Your task to perform on an android device: Go to internet settings Image 0: 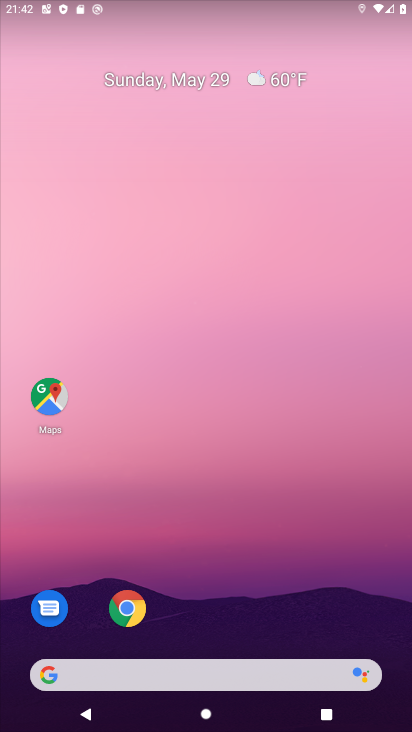
Step 0: drag from (371, 632) to (353, 243)
Your task to perform on an android device: Go to internet settings Image 1: 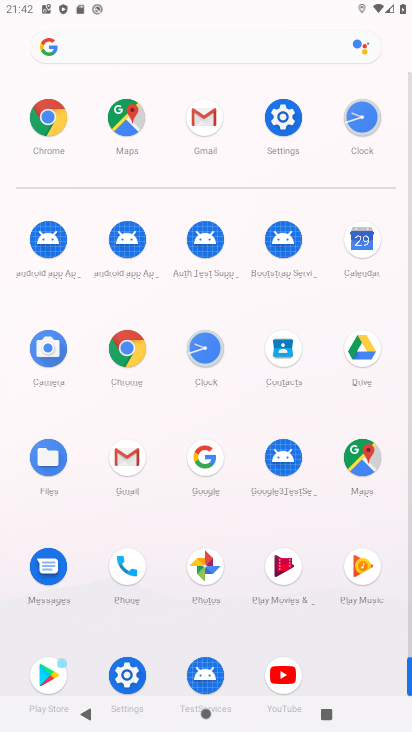
Step 1: click (288, 123)
Your task to perform on an android device: Go to internet settings Image 2: 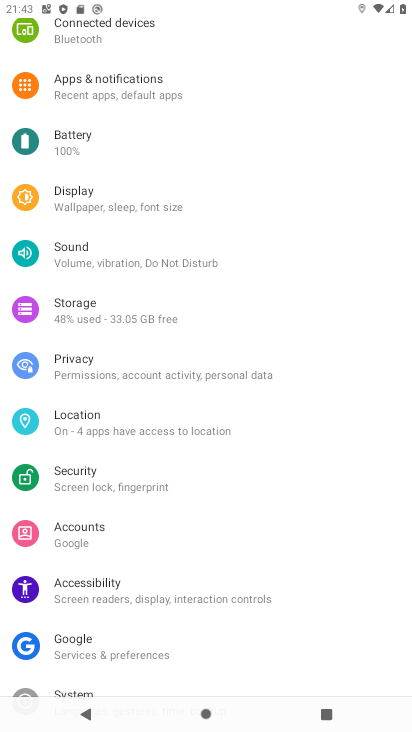
Step 2: drag from (288, 123) to (293, 221)
Your task to perform on an android device: Go to internet settings Image 3: 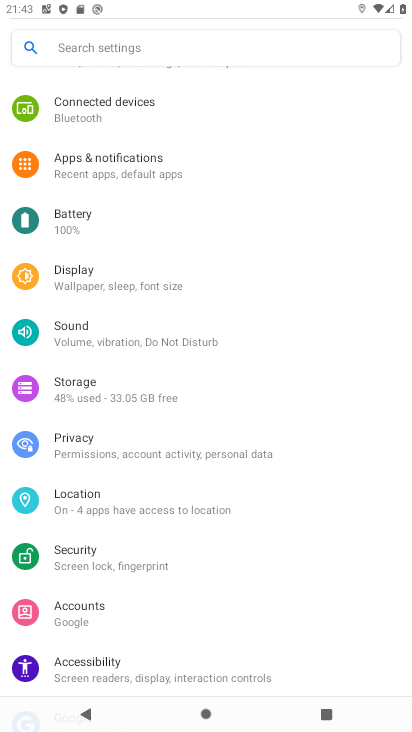
Step 3: drag from (302, 115) to (308, 223)
Your task to perform on an android device: Go to internet settings Image 4: 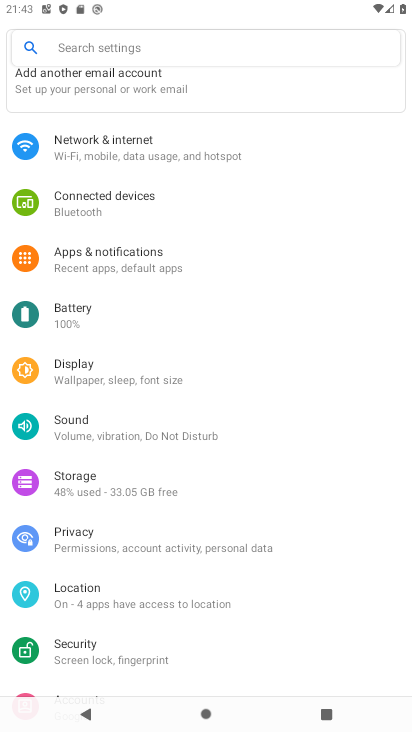
Step 4: drag from (308, 130) to (304, 282)
Your task to perform on an android device: Go to internet settings Image 5: 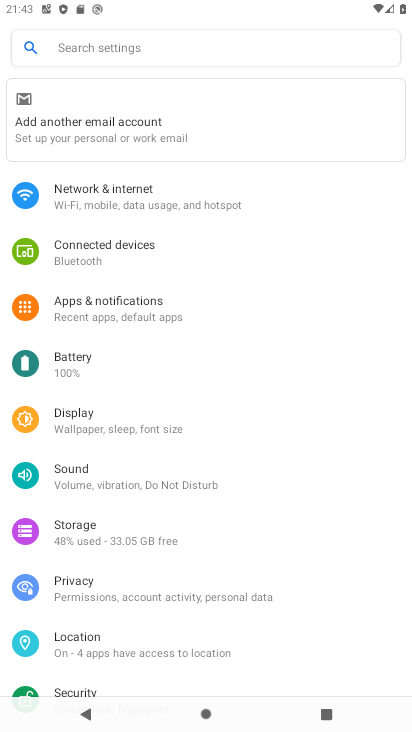
Step 5: click (212, 208)
Your task to perform on an android device: Go to internet settings Image 6: 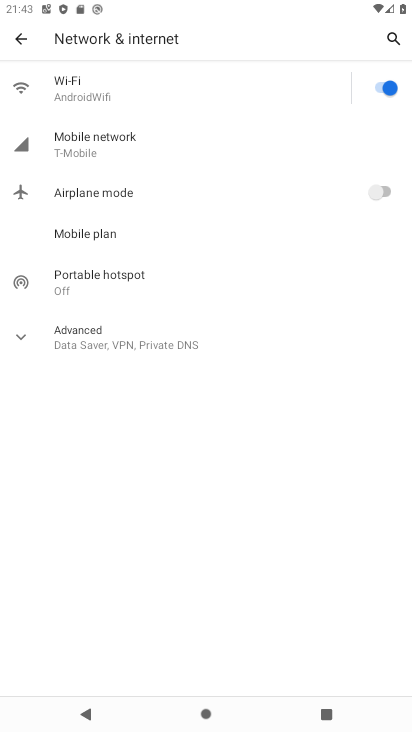
Step 6: task complete